Your task to perform on an android device: turn off sleep mode Image 0: 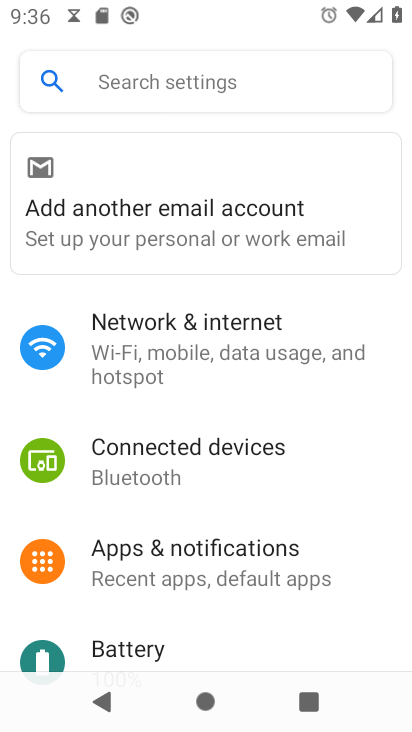
Step 0: press home button
Your task to perform on an android device: turn off sleep mode Image 1: 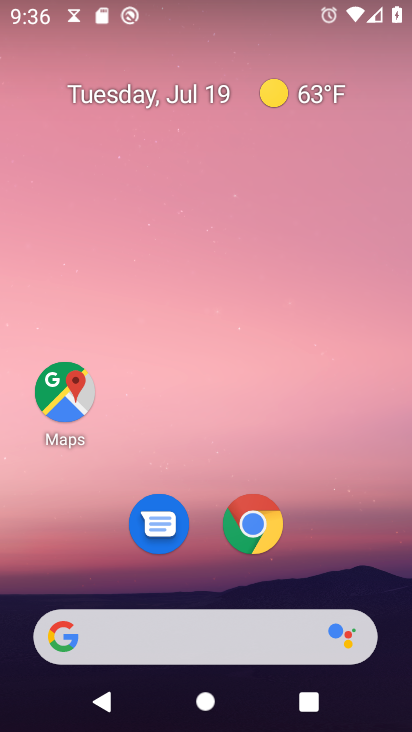
Step 1: drag from (190, 648) to (289, 113)
Your task to perform on an android device: turn off sleep mode Image 2: 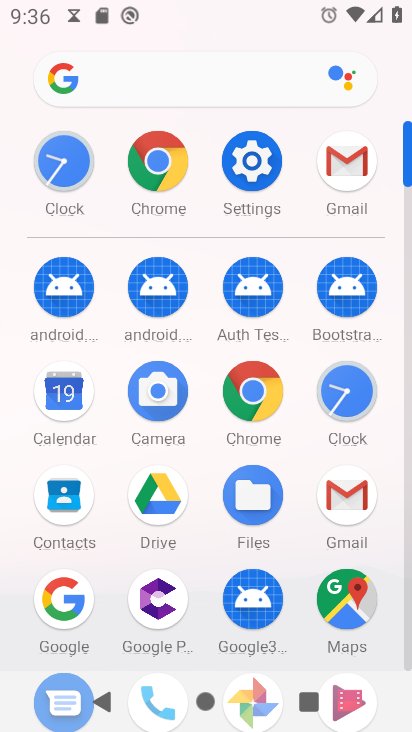
Step 2: click (256, 167)
Your task to perform on an android device: turn off sleep mode Image 3: 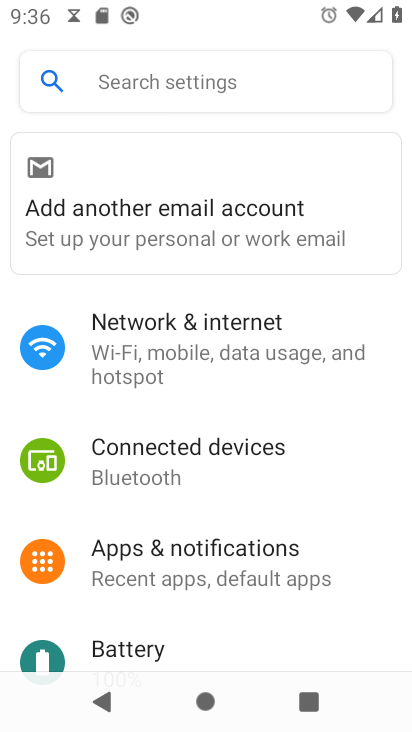
Step 3: drag from (241, 609) to (342, 249)
Your task to perform on an android device: turn off sleep mode Image 4: 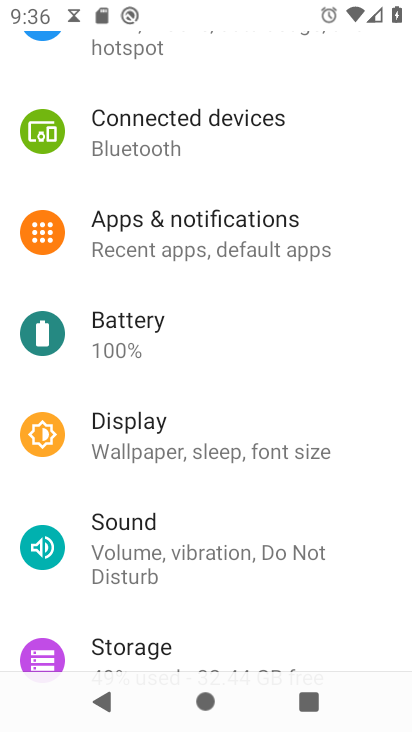
Step 4: click (200, 447)
Your task to perform on an android device: turn off sleep mode Image 5: 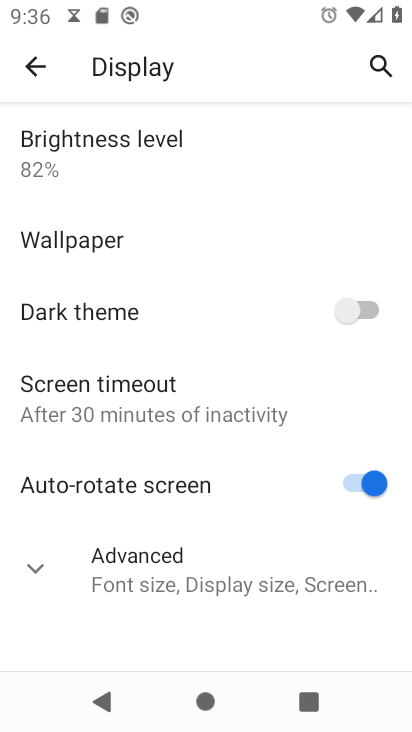
Step 5: click (59, 560)
Your task to perform on an android device: turn off sleep mode Image 6: 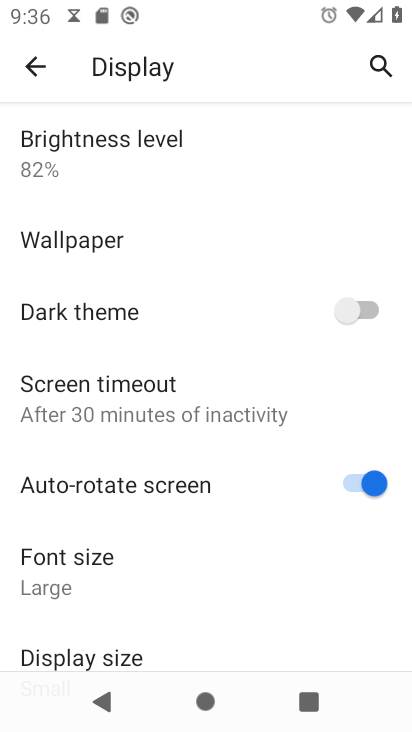
Step 6: task complete